Your task to perform on an android device: Open the calendar app, open the side menu, and click the "Day" option Image 0: 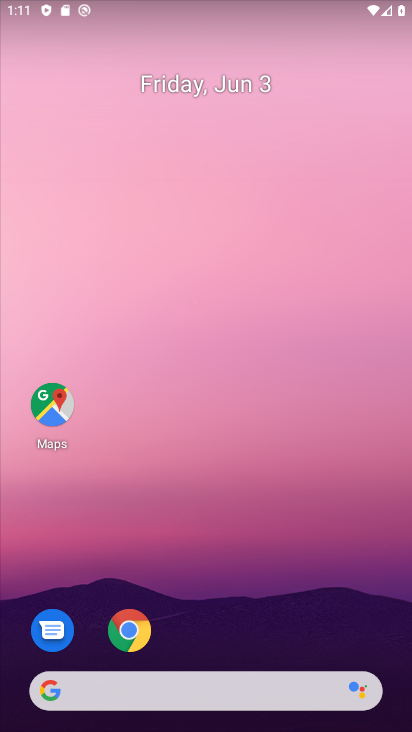
Step 0: drag from (247, 728) to (246, 167)
Your task to perform on an android device: Open the calendar app, open the side menu, and click the "Day" option Image 1: 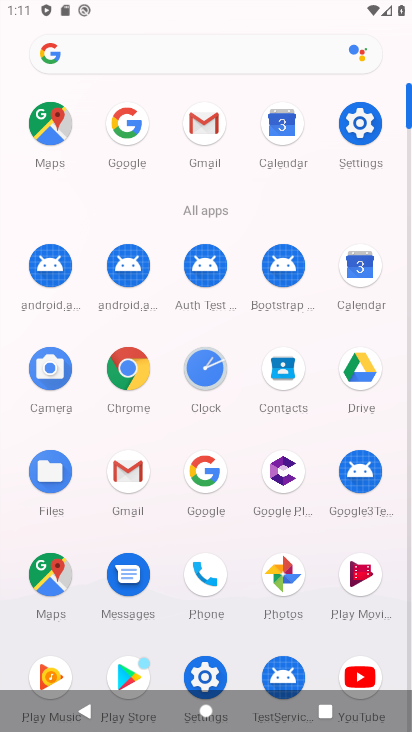
Step 1: click (357, 281)
Your task to perform on an android device: Open the calendar app, open the side menu, and click the "Day" option Image 2: 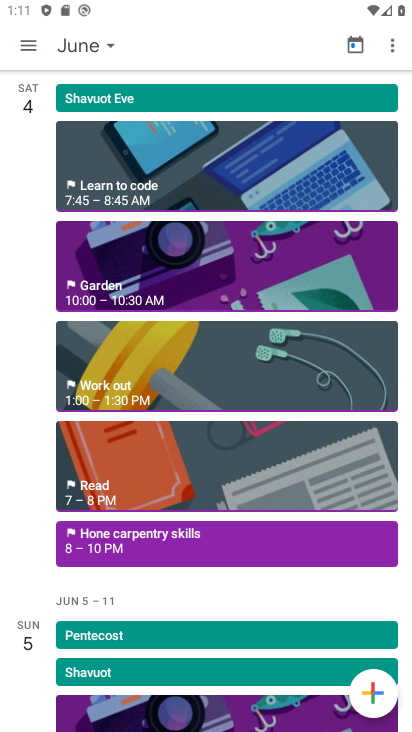
Step 2: click (25, 42)
Your task to perform on an android device: Open the calendar app, open the side menu, and click the "Day" option Image 3: 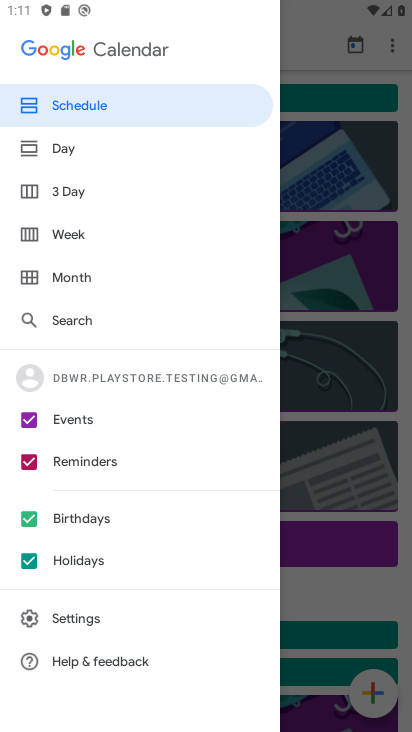
Step 3: click (68, 147)
Your task to perform on an android device: Open the calendar app, open the side menu, and click the "Day" option Image 4: 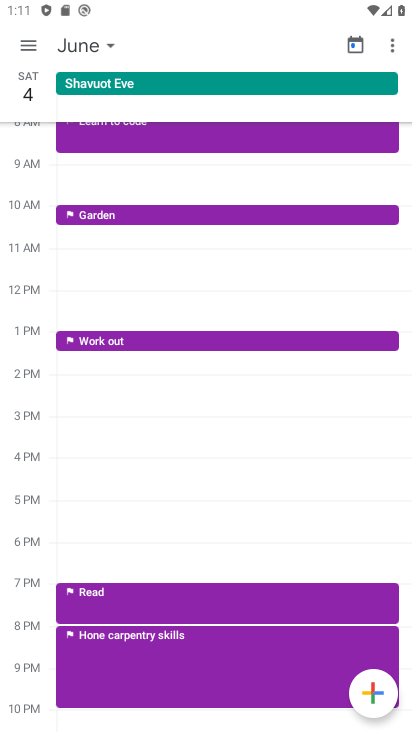
Step 4: task complete